Your task to perform on an android device: turn off sleep mode Image 0: 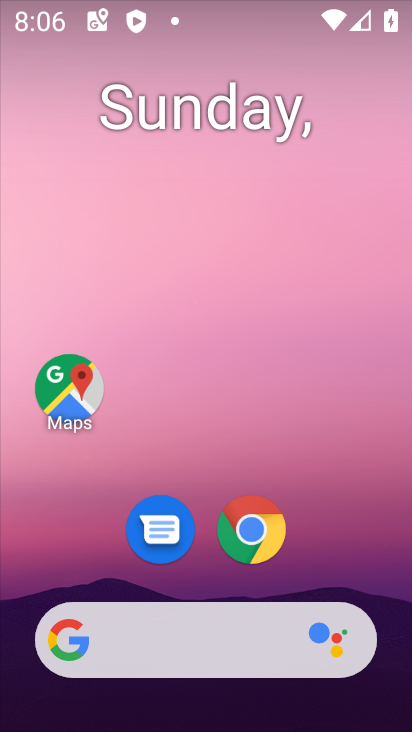
Step 0: drag from (351, 563) to (343, 116)
Your task to perform on an android device: turn off sleep mode Image 1: 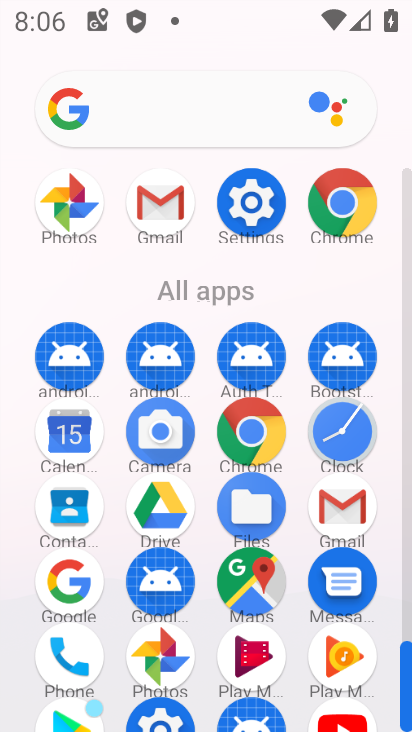
Step 1: click (272, 184)
Your task to perform on an android device: turn off sleep mode Image 2: 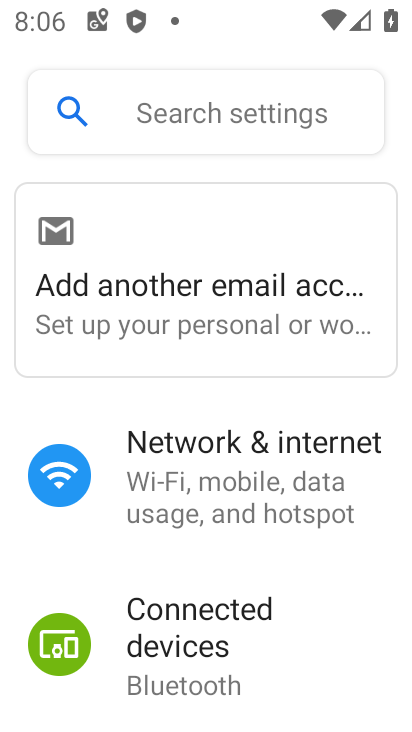
Step 2: click (169, 111)
Your task to perform on an android device: turn off sleep mode Image 3: 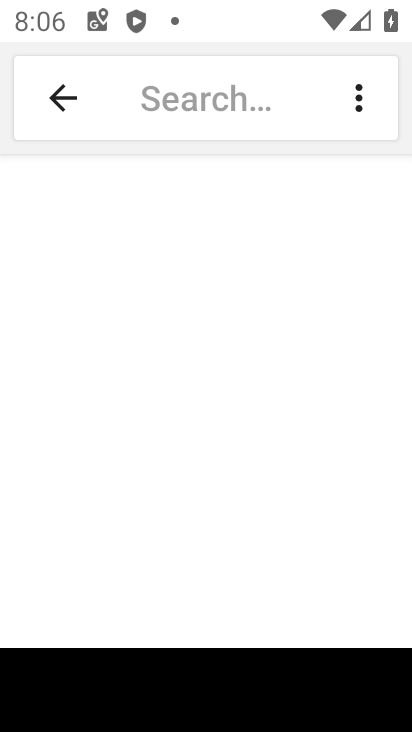
Step 3: type "sleep mode"
Your task to perform on an android device: turn off sleep mode Image 4: 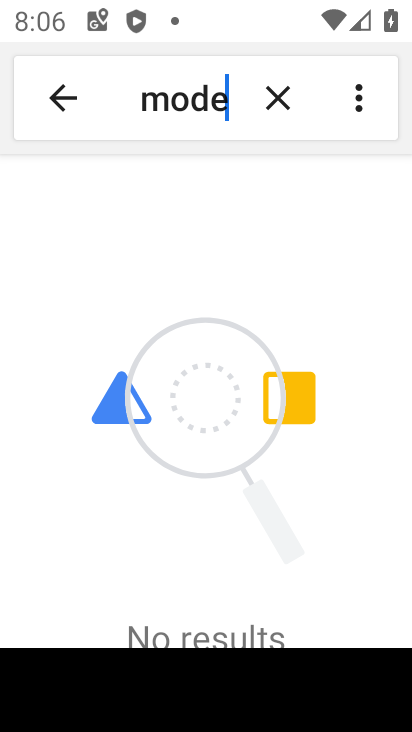
Step 4: task complete